Your task to perform on an android device: turn pop-ups off in chrome Image 0: 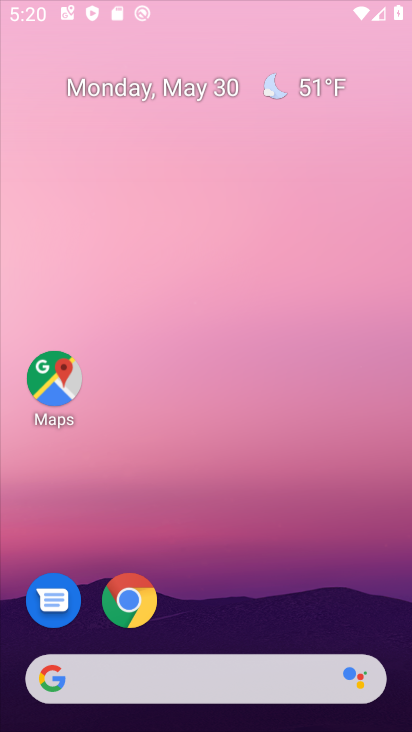
Step 0: click (105, 52)
Your task to perform on an android device: turn pop-ups off in chrome Image 1: 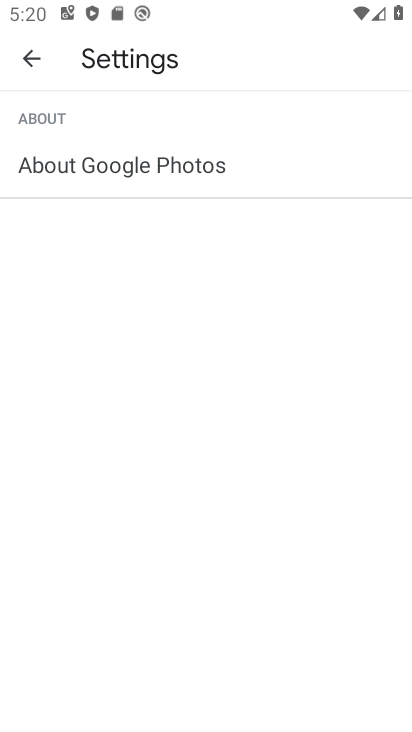
Step 1: click (37, 56)
Your task to perform on an android device: turn pop-ups off in chrome Image 2: 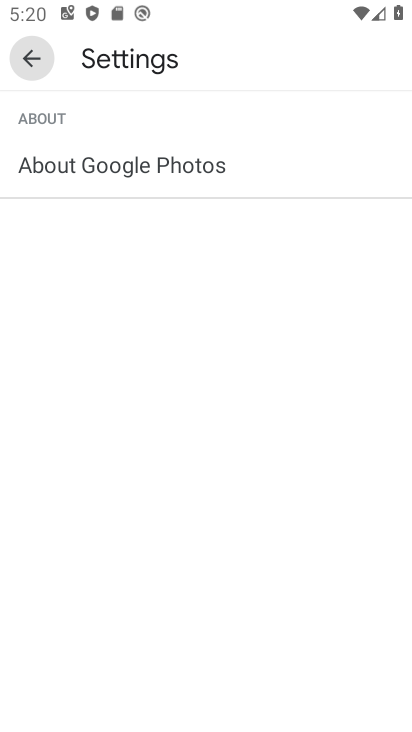
Step 2: click (37, 56)
Your task to perform on an android device: turn pop-ups off in chrome Image 3: 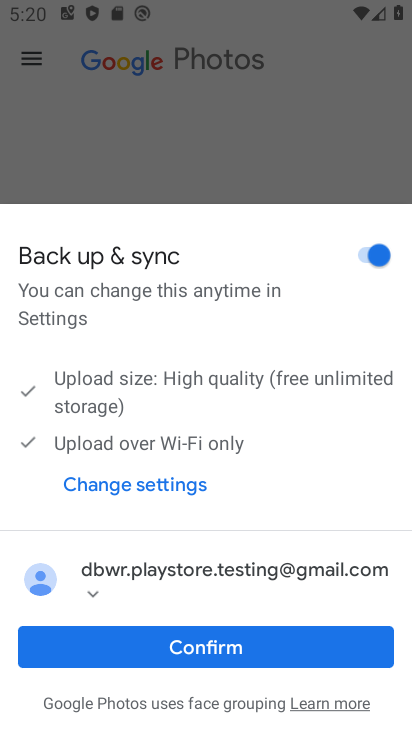
Step 3: click (184, 629)
Your task to perform on an android device: turn pop-ups off in chrome Image 4: 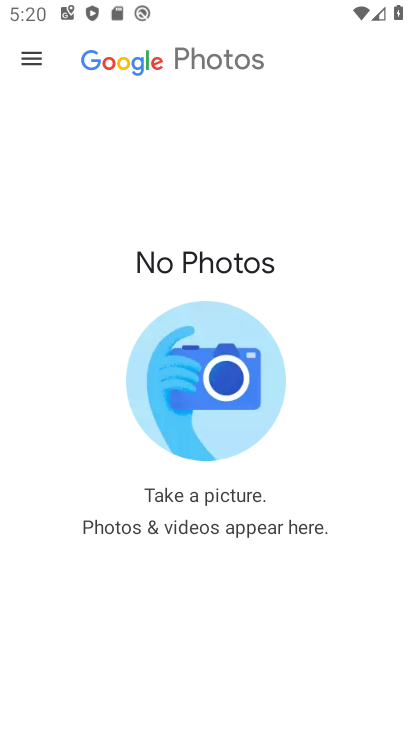
Step 4: click (189, 654)
Your task to perform on an android device: turn pop-ups off in chrome Image 5: 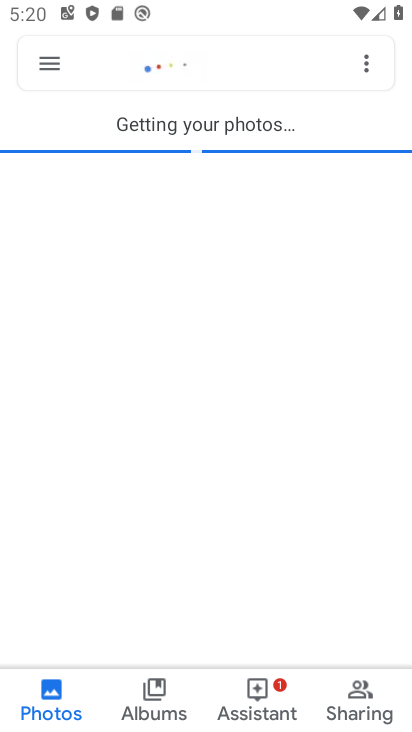
Step 5: press home button
Your task to perform on an android device: turn pop-ups off in chrome Image 6: 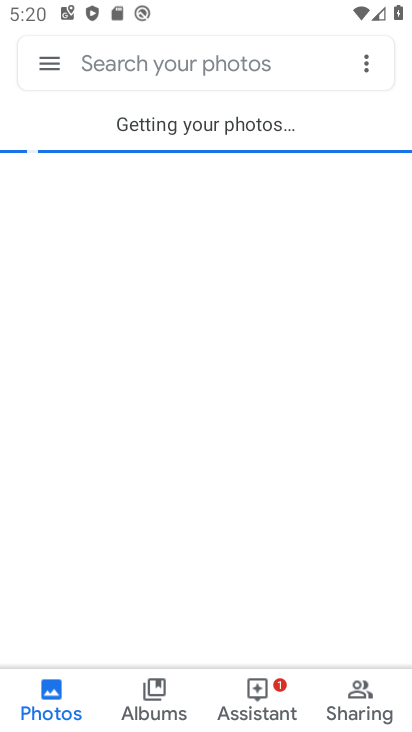
Step 6: press home button
Your task to perform on an android device: turn pop-ups off in chrome Image 7: 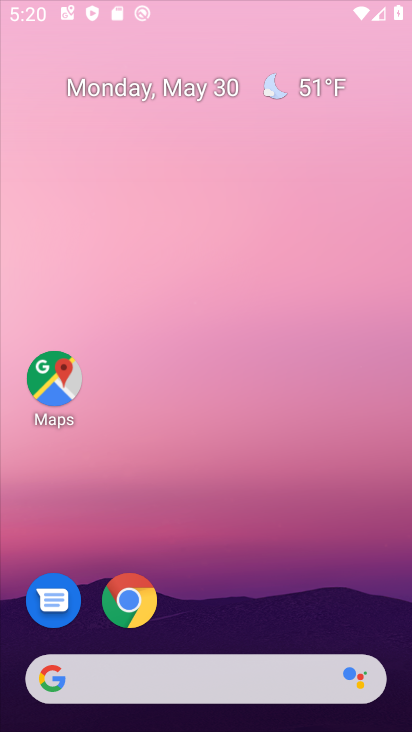
Step 7: press home button
Your task to perform on an android device: turn pop-ups off in chrome Image 8: 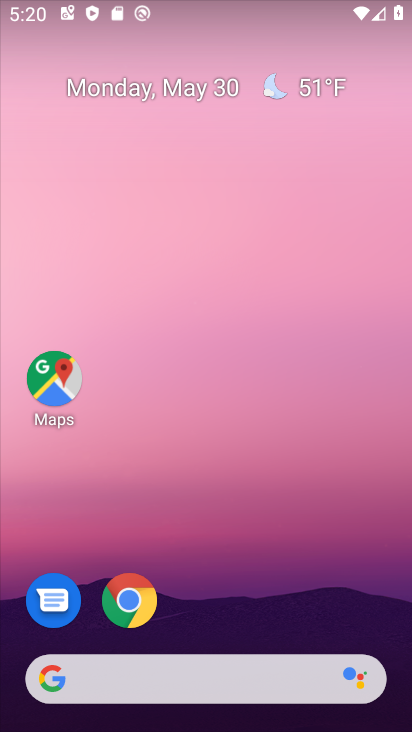
Step 8: drag from (292, 701) to (183, 140)
Your task to perform on an android device: turn pop-ups off in chrome Image 9: 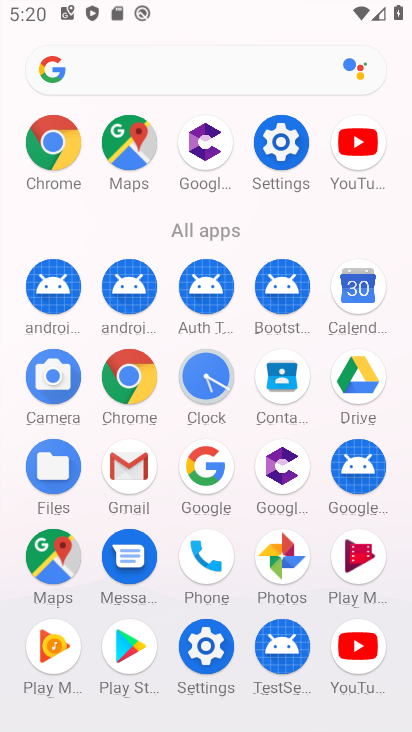
Step 9: click (34, 146)
Your task to perform on an android device: turn pop-ups off in chrome Image 10: 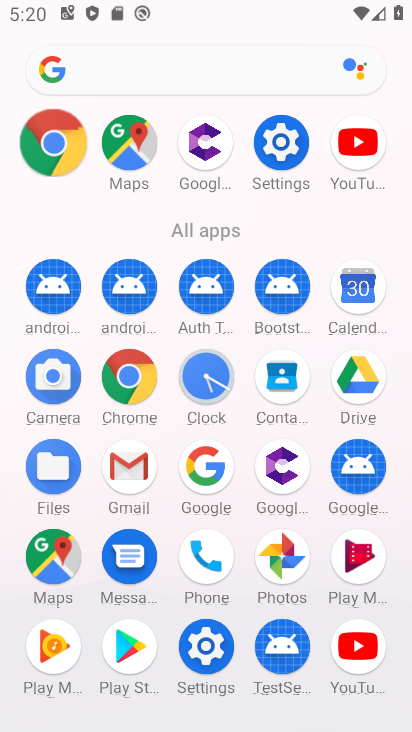
Step 10: click (39, 144)
Your task to perform on an android device: turn pop-ups off in chrome Image 11: 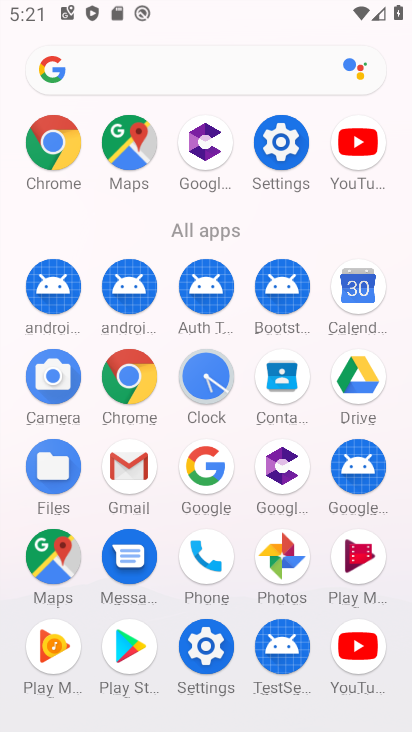
Step 11: click (51, 137)
Your task to perform on an android device: turn pop-ups off in chrome Image 12: 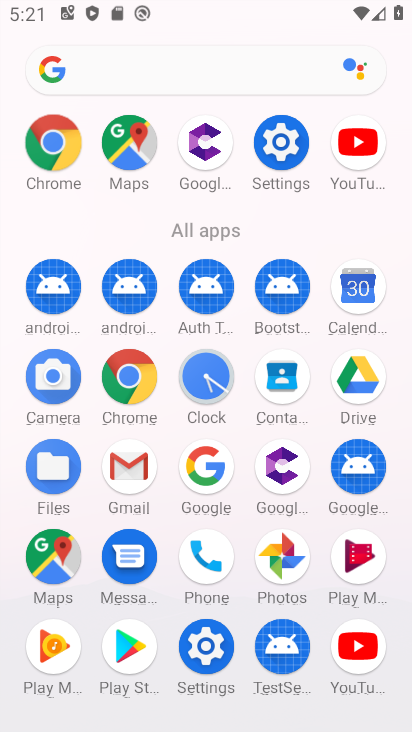
Step 12: click (56, 144)
Your task to perform on an android device: turn pop-ups off in chrome Image 13: 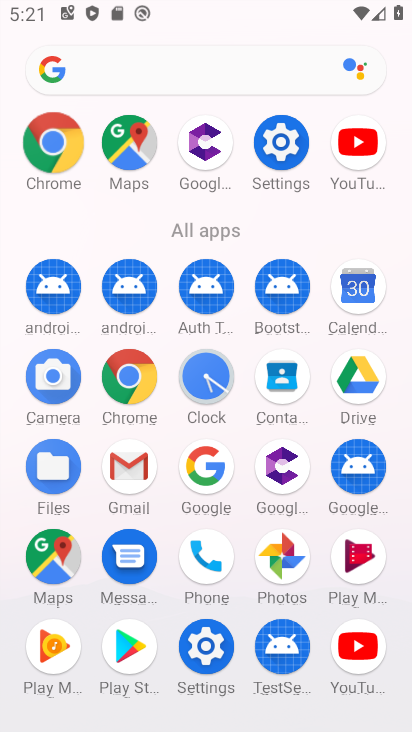
Step 13: click (63, 160)
Your task to perform on an android device: turn pop-ups off in chrome Image 14: 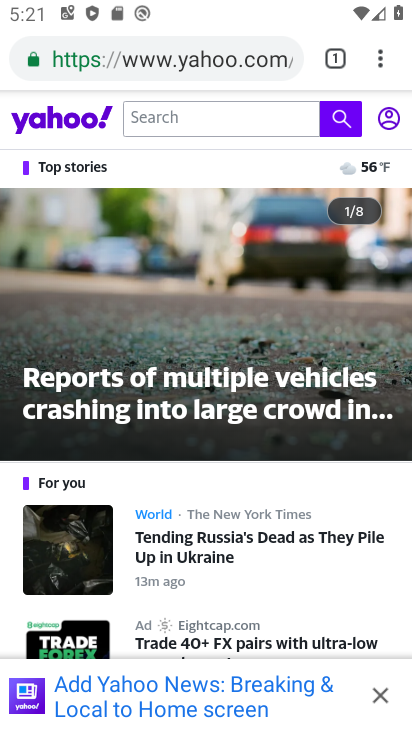
Step 14: click (60, 146)
Your task to perform on an android device: turn pop-ups off in chrome Image 15: 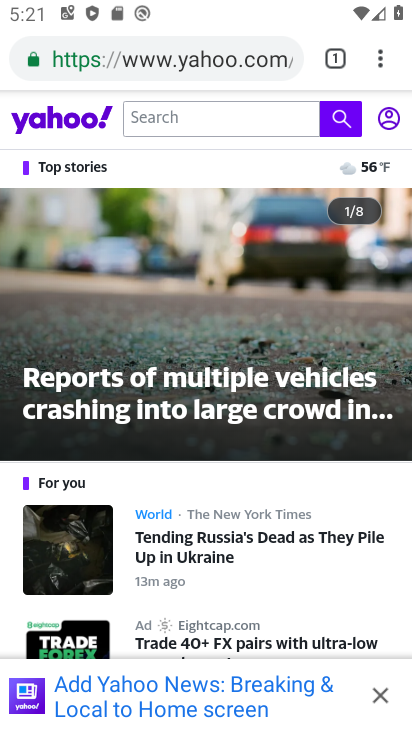
Step 15: drag from (387, 54) to (165, 627)
Your task to perform on an android device: turn pop-ups off in chrome Image 16: 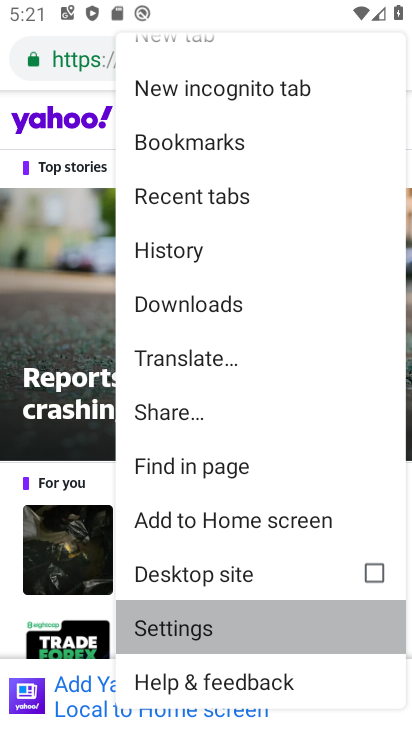
Step 16: click (165, 627)
Your task to perform on an android device: turn pop-ups off in chrome Image 17: 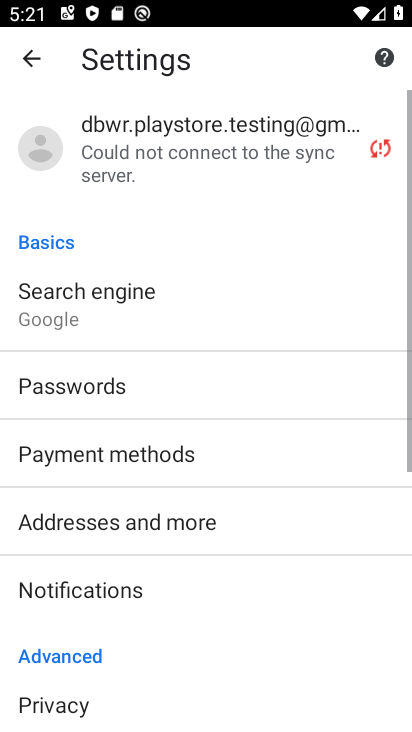
Step 17: drag from (166, 535) to (254, 167)
Your task to perform on an android device: turn pop-ups off in chrome Image 18: 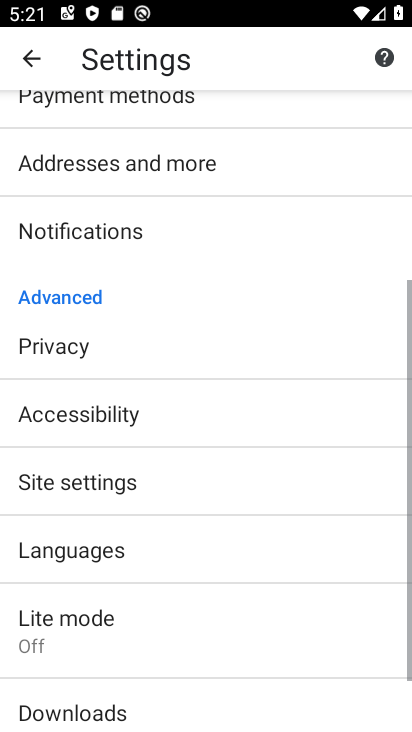
Step 18: drag from (200, 381) to (189, 94)
Your task to perform on an android device: turn pop-ups off in chrome Image 19: 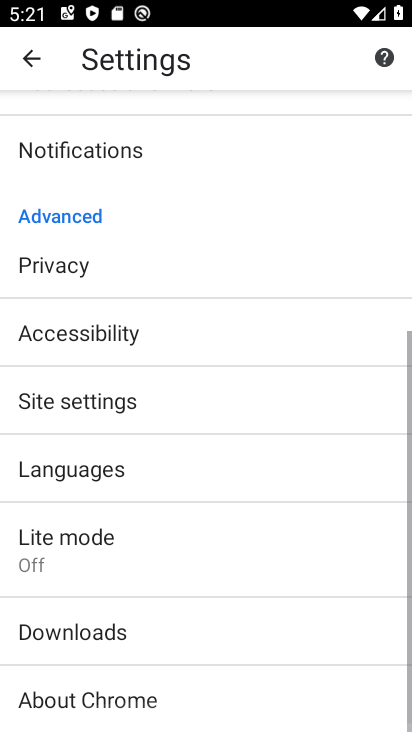
Step 19: drag from (170, 474) to (121, 7)
Your task to perform on an android device: turn pop-ups off in chrome Image 20: 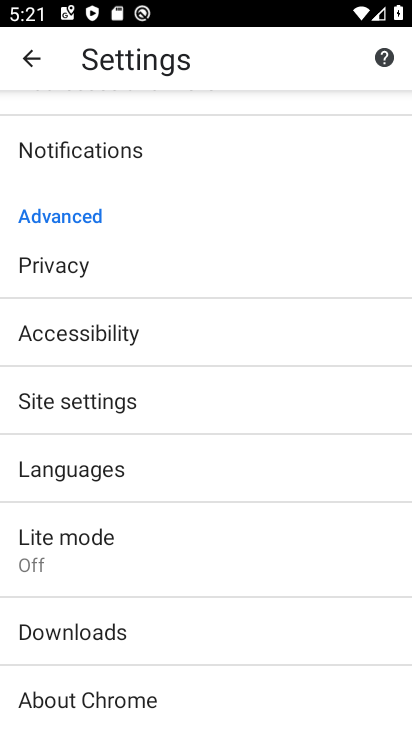
Step 20: click (52, 391)
Your task to perform on an android device: turn pop-ups off in chrome Image 21: 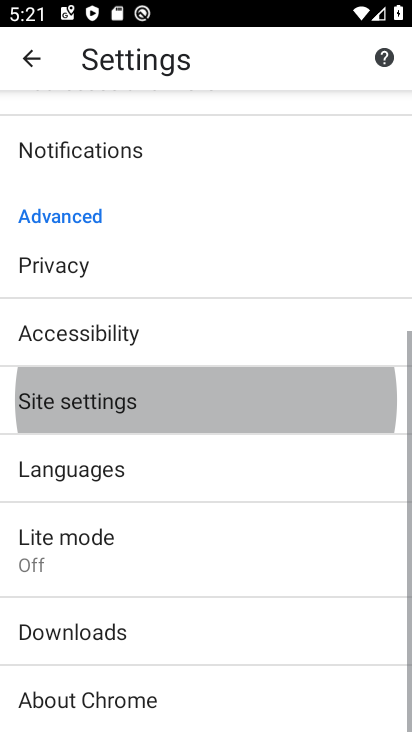
Step 21: click (58, 388)
Your task to perform on an android device: turn pop-ups off in chrome Image 22: 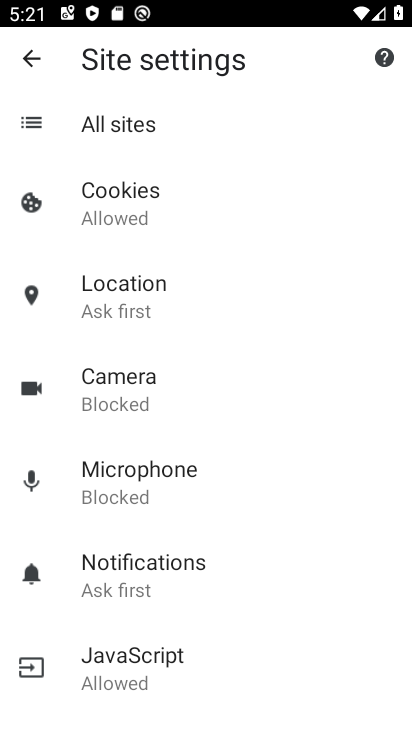
Step 22: drag from (158, 464) to (112, 109)
Your task to perform on an android device: turn pop-ups off in chrome Image 23: 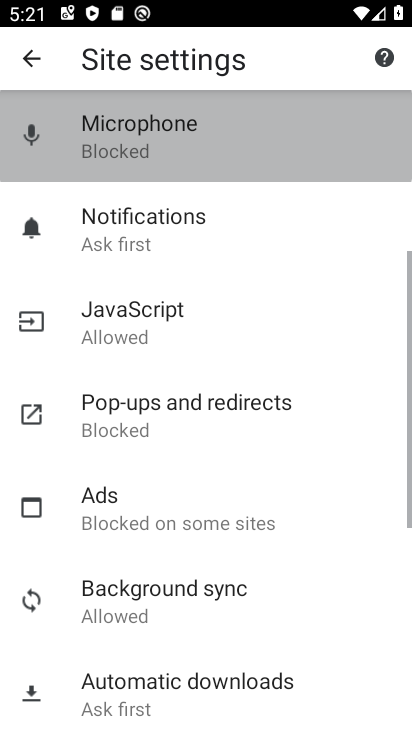
Step 23: drag from (69, 541) to (26, 280)
Your task to perform on an android device: turn pop-ups off in chrome Image 24: 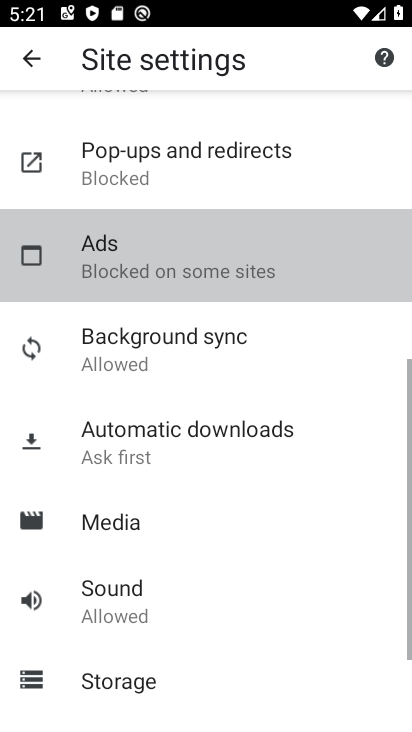
Step 24: drag from (93, 498) to (79, 271)
Your task to perform on an android device: turn pop-ups off in chrome Image 25: 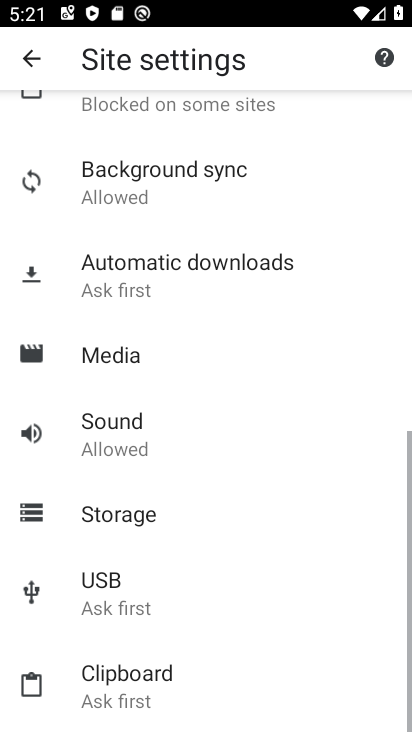
Step 25: drag from (136, 626) to (140, 706)
Your task to perform on an android device: turn pop-ups off in chrome Image 26: 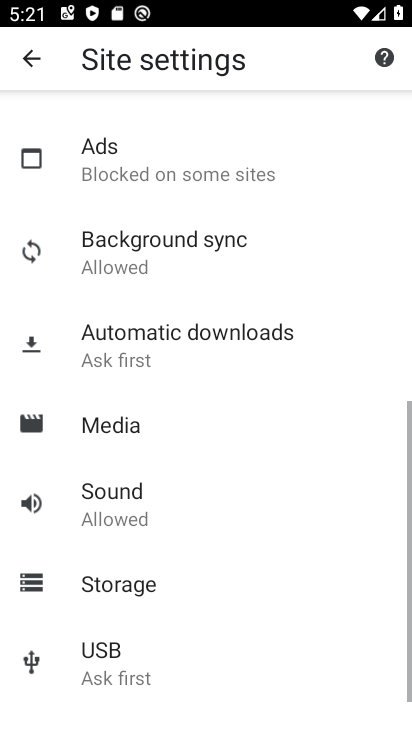
Step 26: drag from (140, 371) to (129, 679)
Your task to perform on an android device: turn pop-ups off in chrome Image 27: 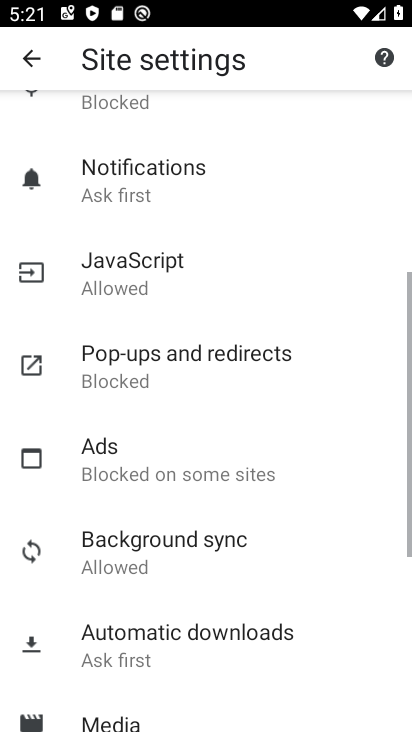
Step 27: drag from (76, 309) to (85, 676)
Your task to perform on an android device: turn pop-ups off in chrome Image 28: 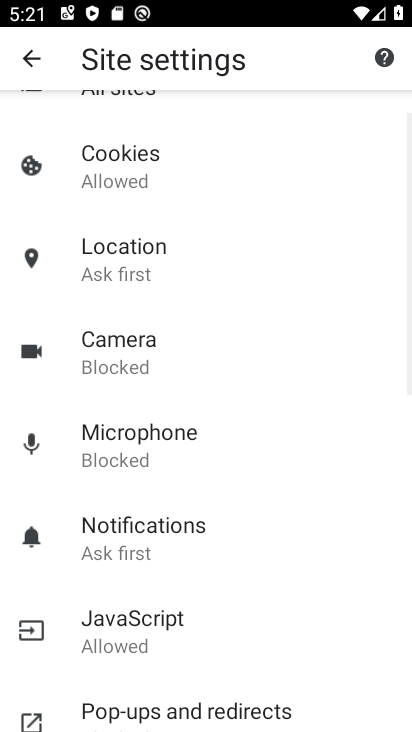
Step 28: click (101, 634)
Your task to perform on an android device: turn pop-ups off in chrome Image 29: 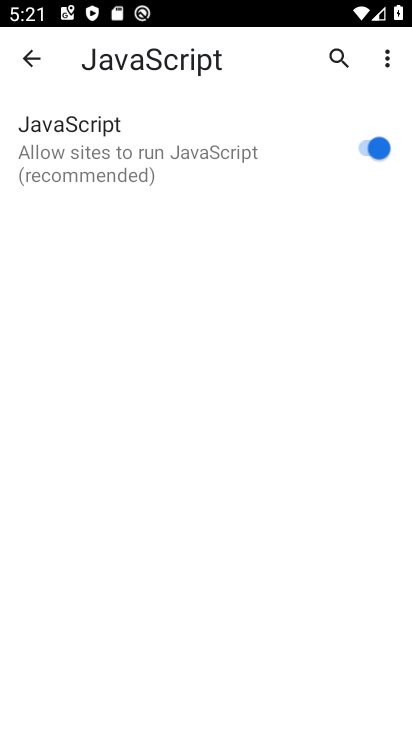
Step 29: click (17, 62)
Your task to perform on an android device: turn pop-ups off in chrome Image 30: 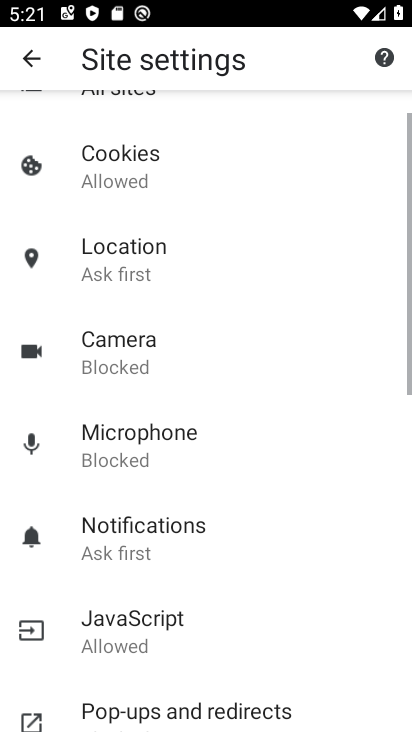
Step 30: click (146, 715)
Your task to perform on an android device: turn pop-ups off in chrome Image 31: 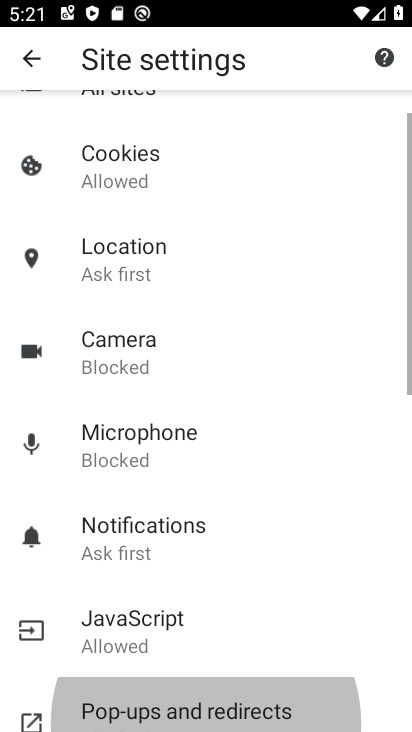
Step 31: click (146, 715)
Your task to perform on an android device: turn pop-ups off in chrome Image 32: 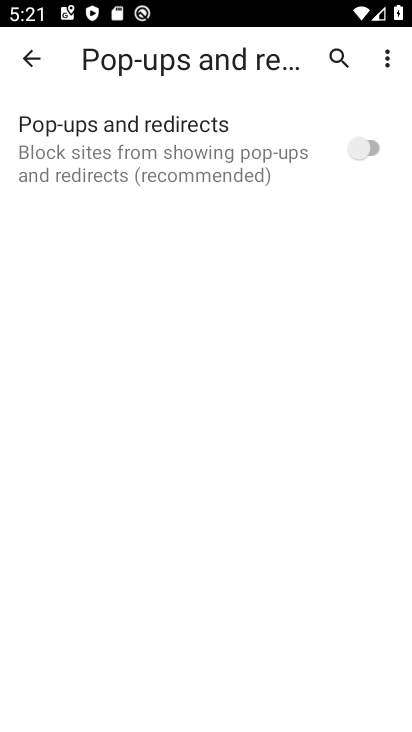
Step 32: task complete